Your task to perform on an android device: check storage Image 0: 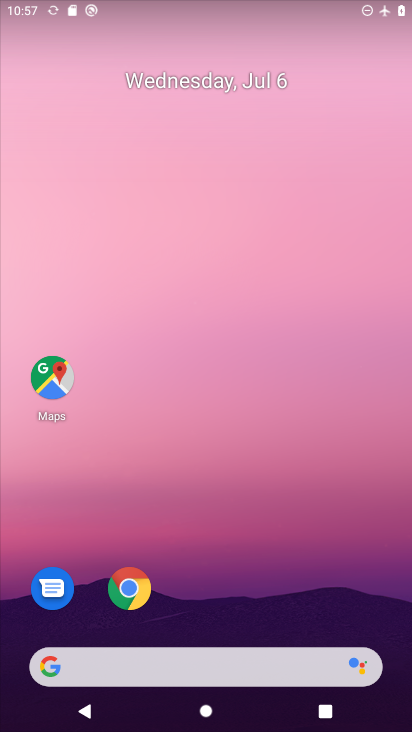
Step 0: drag from (221, 610) to (206, 14)
Your task to perform on an android device: check storage Image 1: 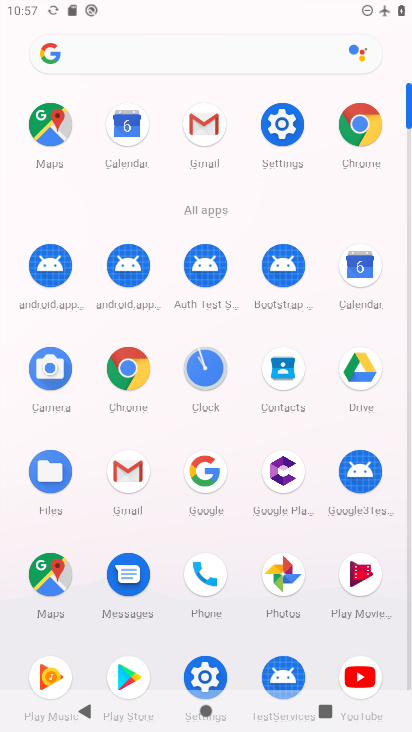
Step 1: click (289, 109)
Your task to perform on an android device: check storage Image 2: 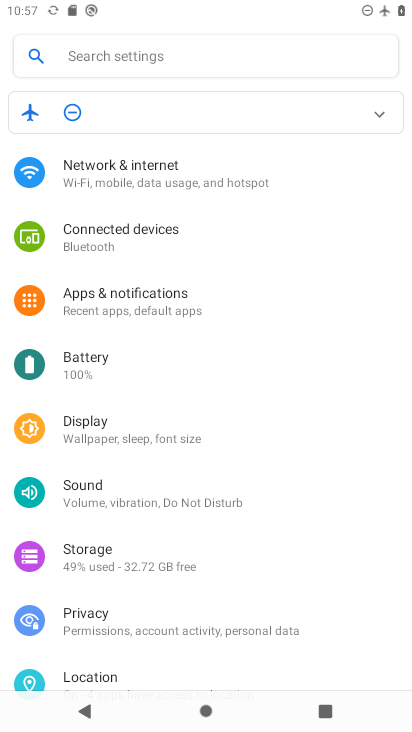
Step 2: click (232, 569)
Your task to perform on an android device: check storage Image 3: 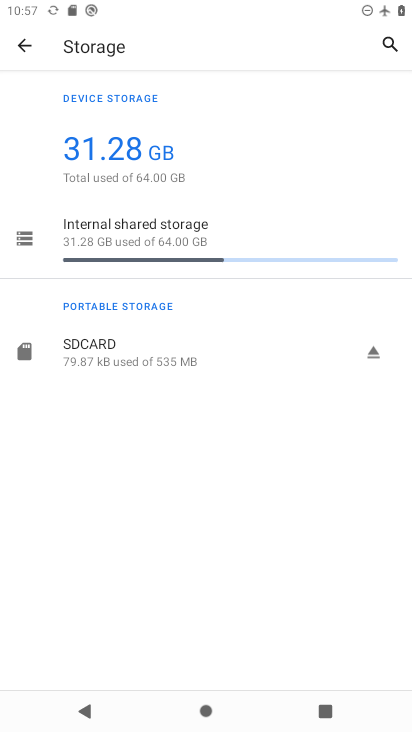
Step 3: task complete